Your task to perform on an android device: Open calendar and show me the fourth week of next month Image 0: 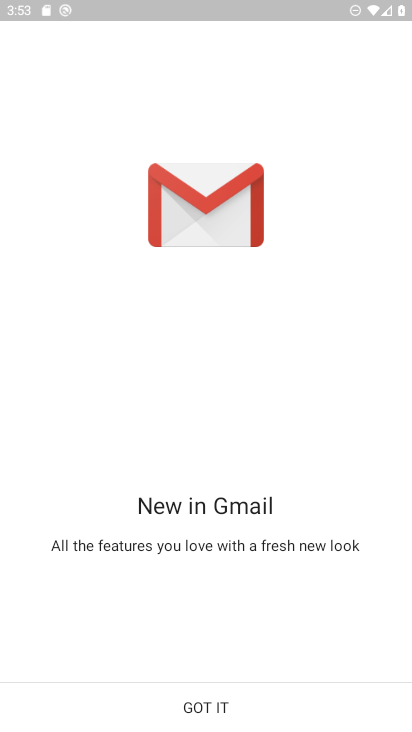
Step 0: press home button
Your task to perform on an android device: Open calendar and show me the fourth week of next month Image 1: 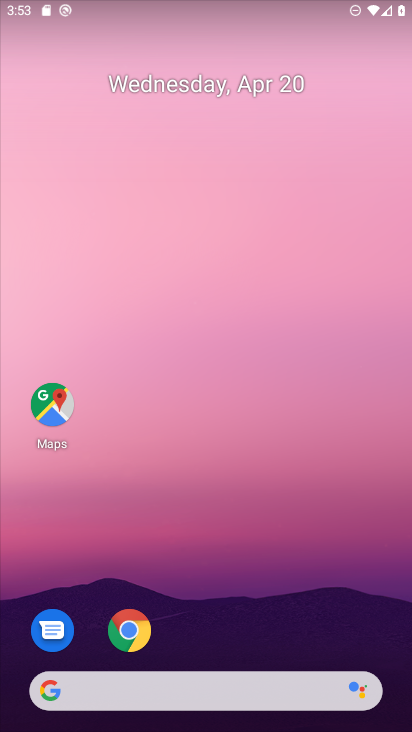
Step 1: drag from (187, 685) to (204, 100)
Your task to perform on an android device: Open calendar and show me the fourth week of next month Image 2: 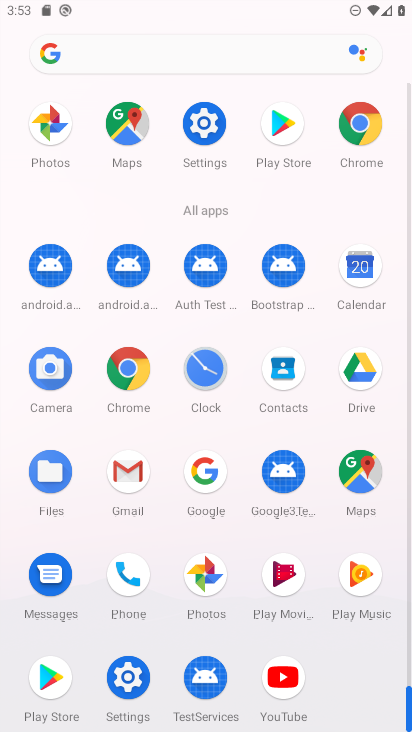
Step 2: click (355, 275)
Your task to perform on an android device: Open calendar and show me the fourth week of next month Image 3: 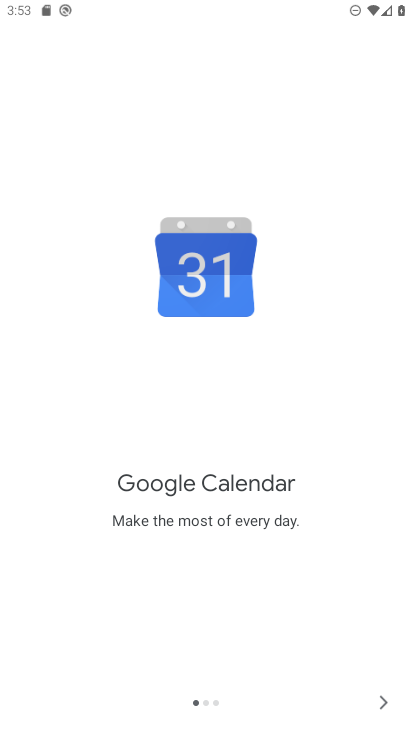
Step 3: click (377, 698)
Your task to perform on an android device: Open calendar and show me the fourth week of next month Image 4: 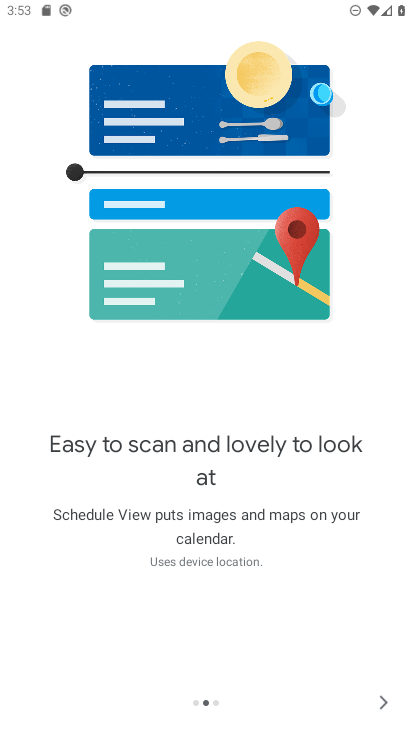
Step 4: click (381, 699)
Your task to perform on an android device: Open calendar and show me the fourth week of next month Image 5: 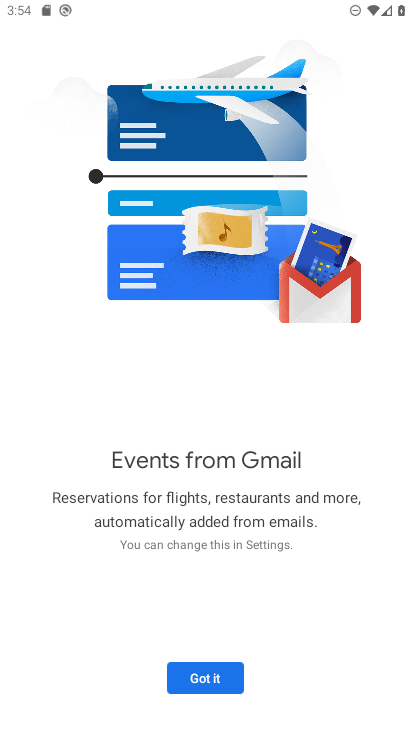
Step 5: click (204, 683)
Your task to perform on an android device: Open calendar and show me the fourth week of next month Image 6: 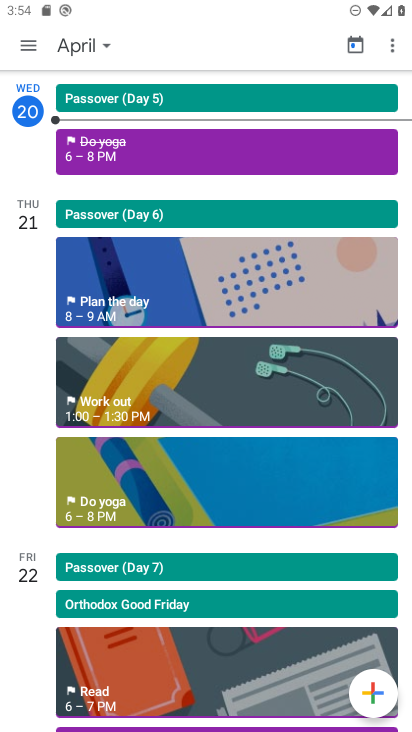
Step 6: click (104, 52)
Your task to perform on an android device: Open calendar and show me the fourth week of next month Image 7: 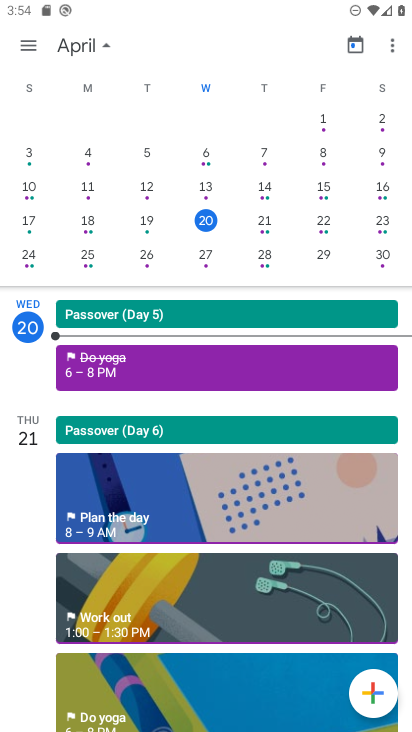
Step 7: drag from (380, 179) to (56, 190)
Your task to perform on an android device: Open calendar and show me the fourth week of next month Image 8: 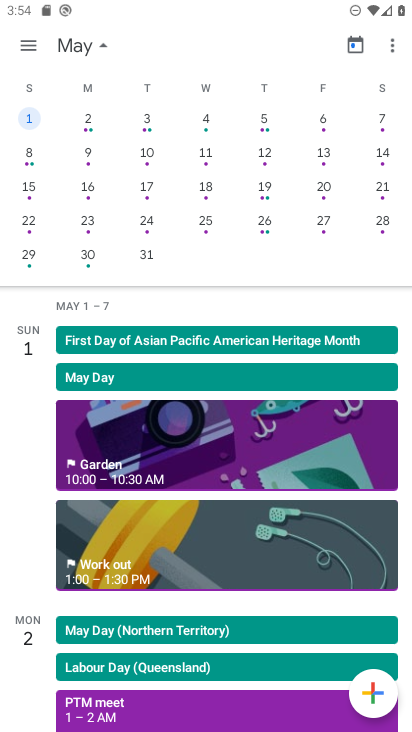
Step 8: click (211, 227)
Your task to perform on an android device: Open calendar and show me the fourth week of next month Image 9: 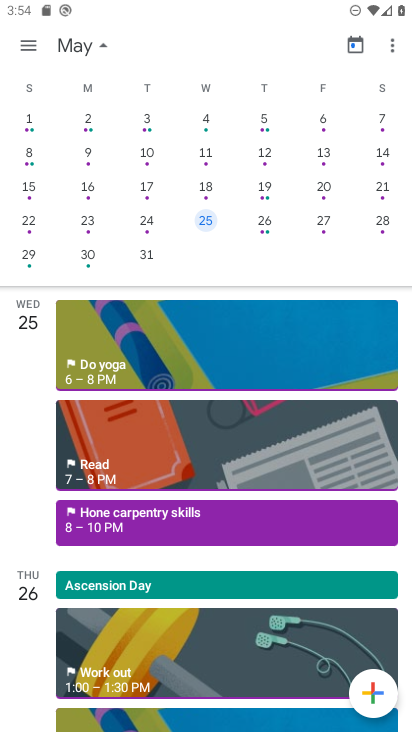
Step 9: task complete